Your task to perform on an android device: Is it going to rain today? Image 0: 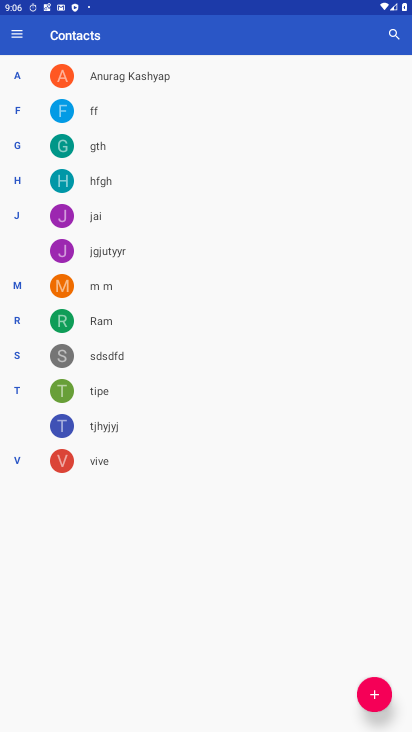
Step 0: press home button
Your task to perform on an android device: Is it going to rain today? Image 1: 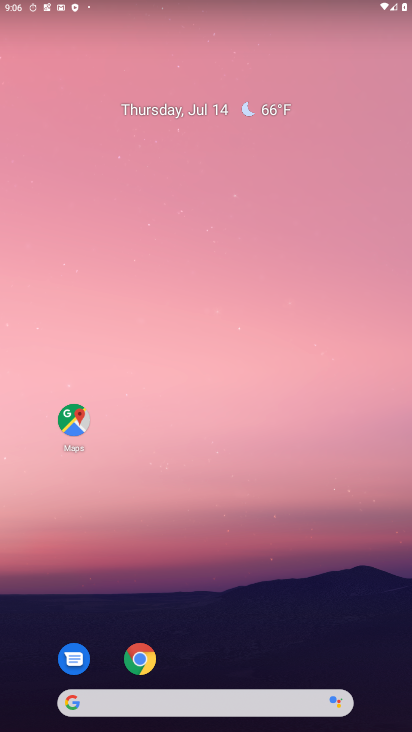
Step 1: click (77, 708)
Your task to perform on an android device: Is it going to rain today? Image 2: 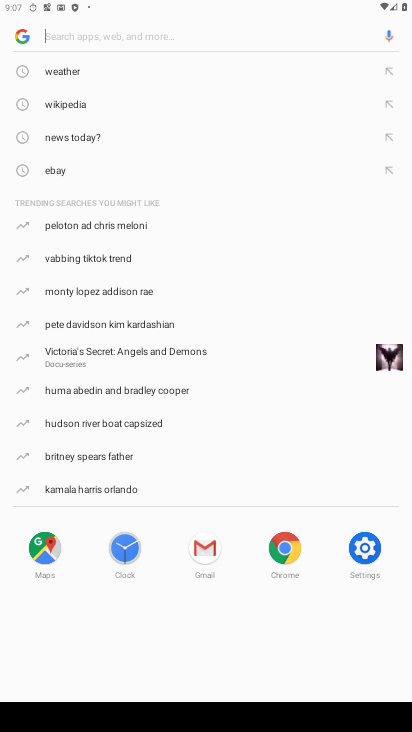
Step 2: type "Is it going to rain today?"
Your task to perform on an android device: Is it going to rain today? Image 3: 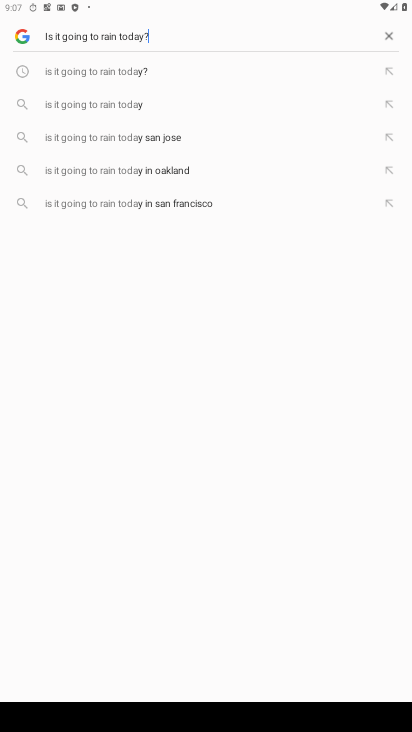
Step 3: press enter
Your task to perform on an android device: Is it going to rain today? Image 4: 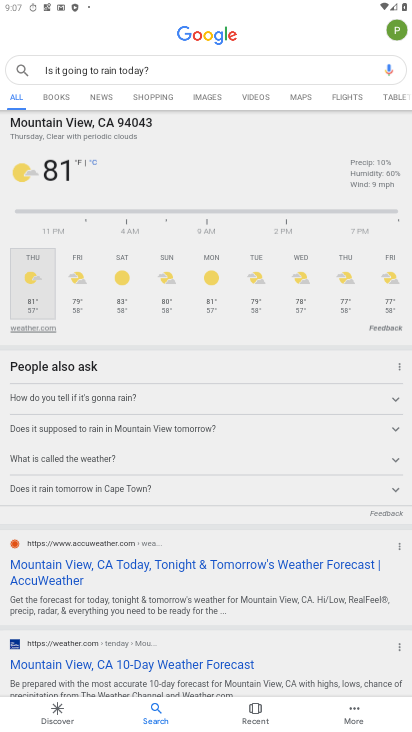
Step 4: task complete